Your task to perform on an android device: What is the capital of Spain? Image 0: 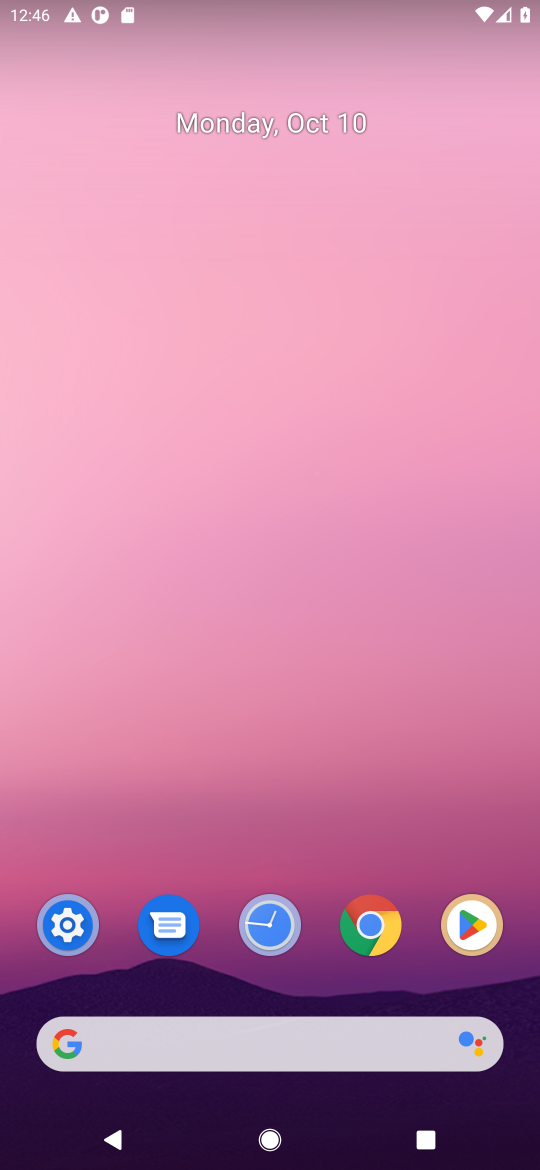
Step 0: drag from (243, 804) to (243, 111)
Your task to perform on an android device: What is the capital of Spain? Image 1: 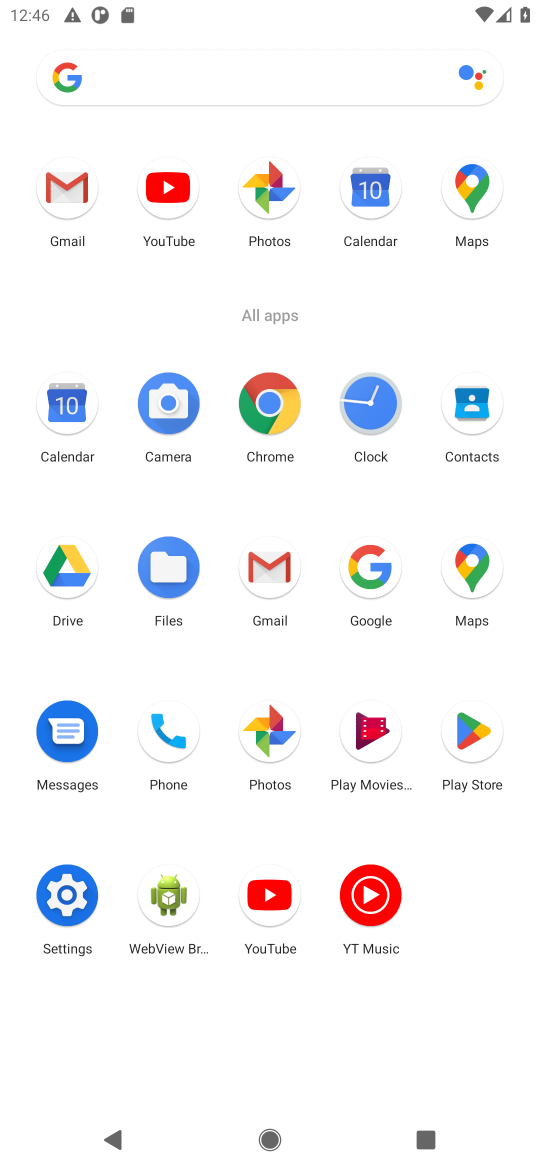
Step 1: click (369, 567)
Your task to perform on an android device: What is the capital of Spain? Image 2: 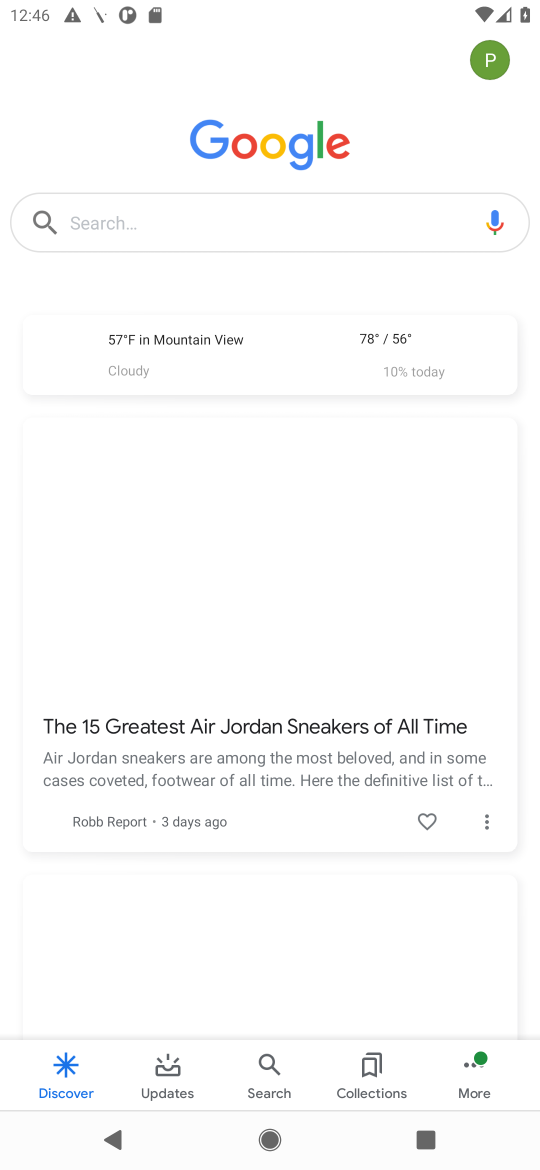
Step 2: click (129, 206)
Your task to perform on an android device: What is the capital of Spain? Image 3: 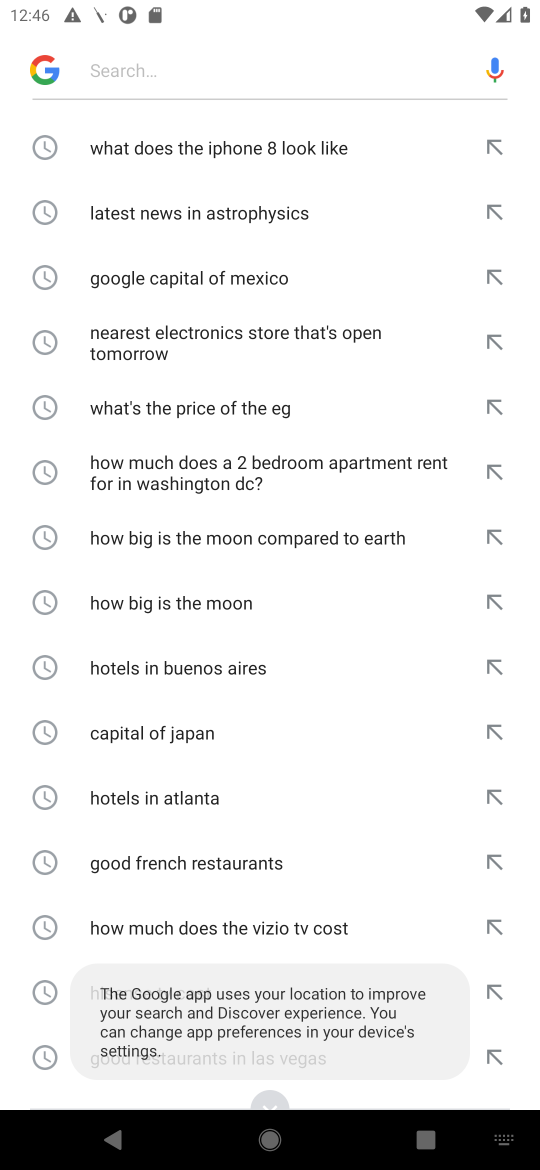
Step 3: type "What is the capital of Spain?"
Your task to perform on an android device: What is the capital of Spain? Image 4: 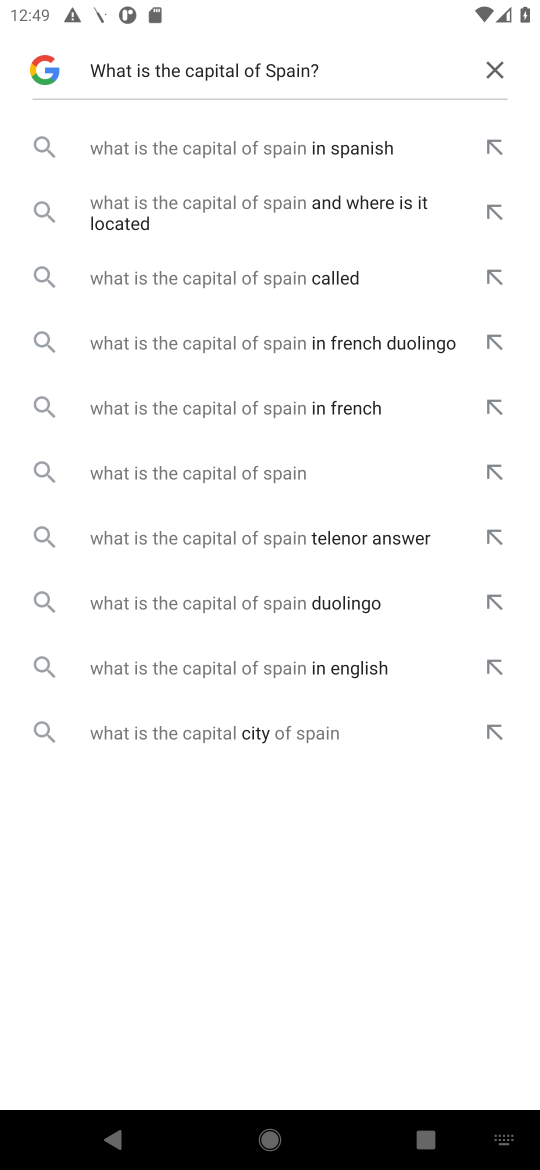
Step 4: click (194, 154)
Your task to perform on an android device: What is the capital of Spain? Image 5: 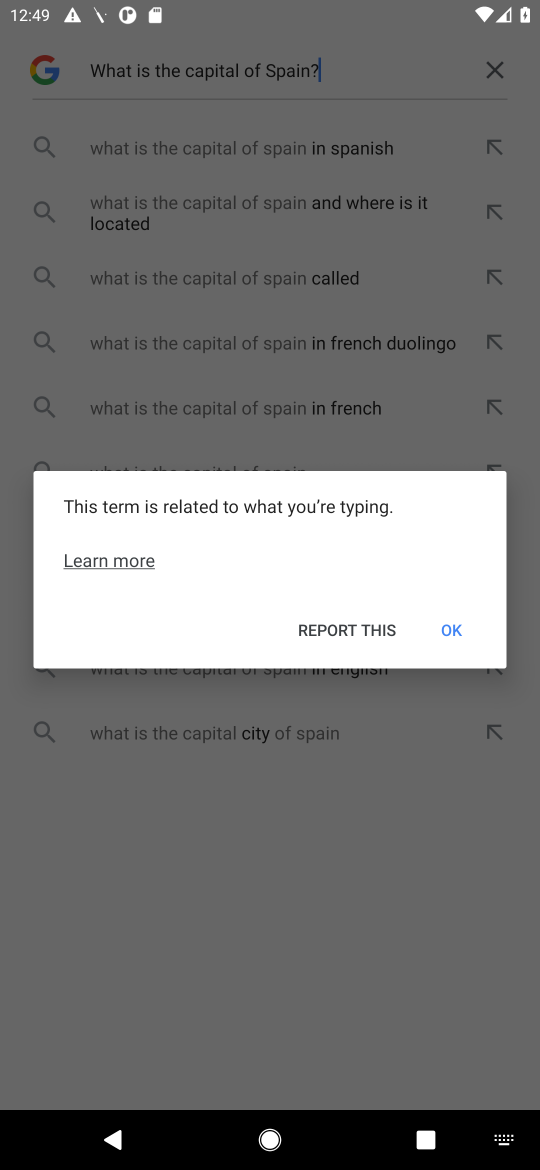
Step 5: click (458, 634)
Your task to perform on an android device: What is the capital of Spain? Image 6: 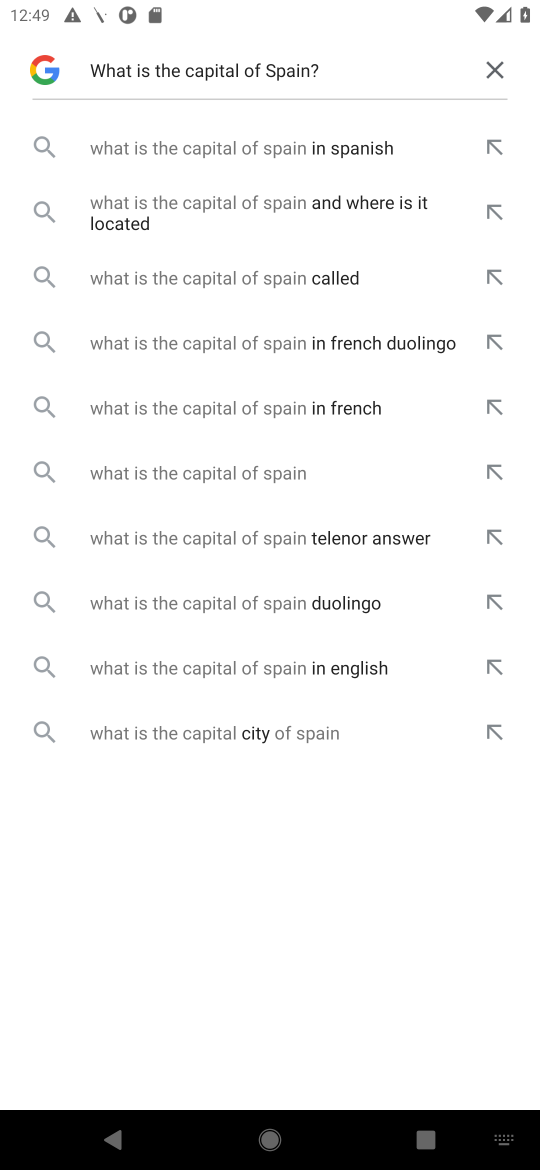
Step 6: click (376, 147)
Your task to perform on an android device: What is the capital of Spain? Image 7: 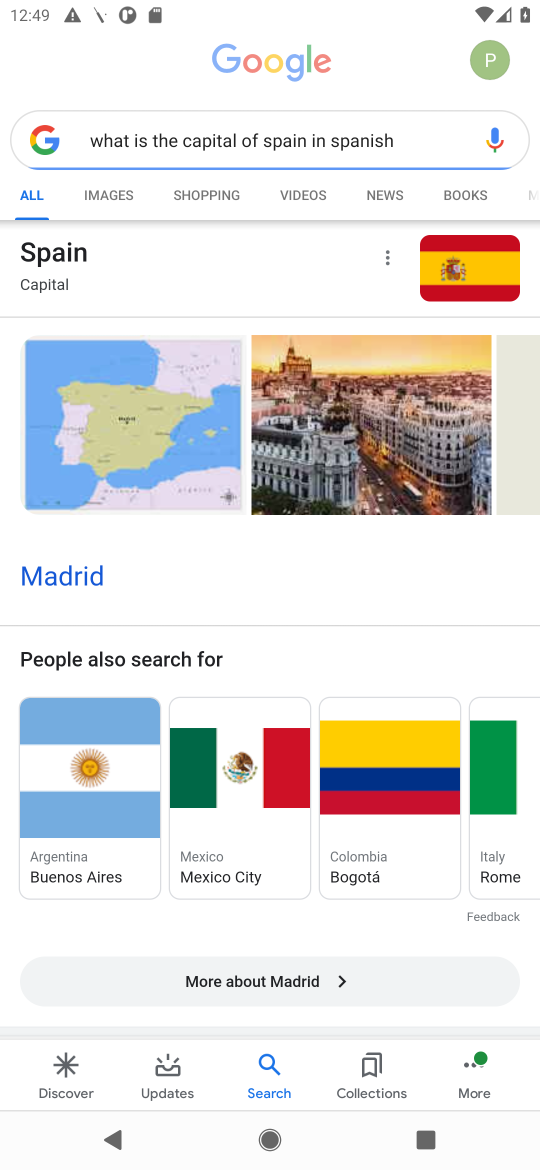
Step 7: task complete